Your task to perform on an android device: turn on location history Image 0: 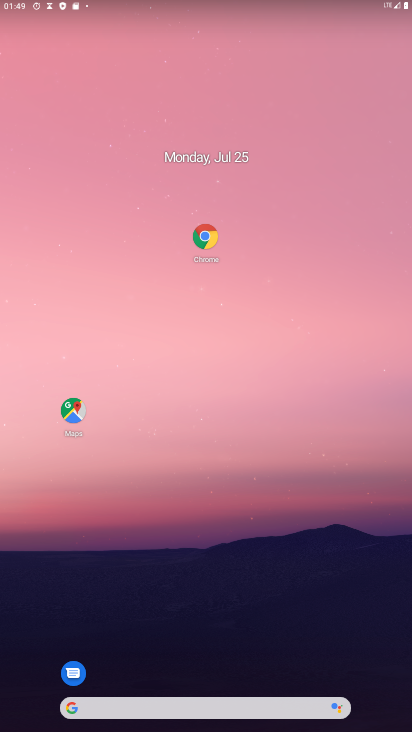
Step 0: drag from (287, 693) to (279, 55)
Your task to perform on an android device: turn on location history Image 1: 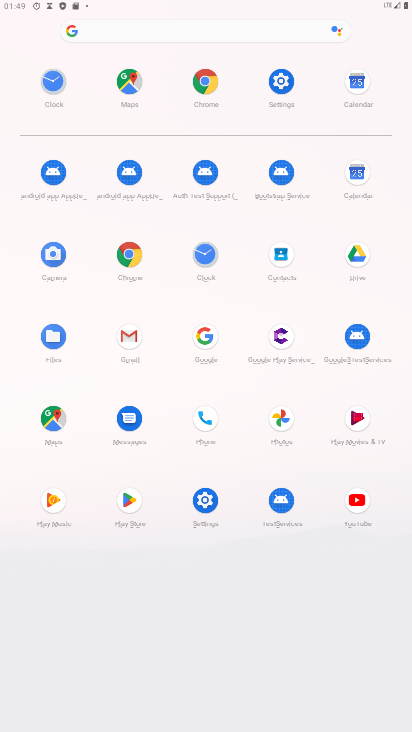
Step 1: click (288, 76)
Your task to perform on an android device: turn on location history Image 2: 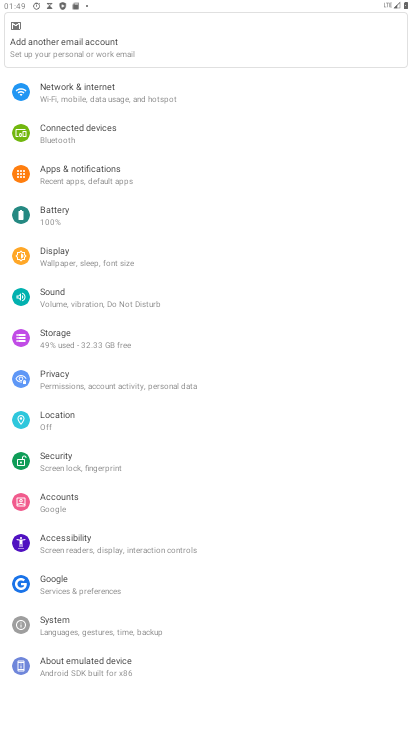
Step 2: click (80, 426)
Your task to perform on an android device: turn on location history Image 3: 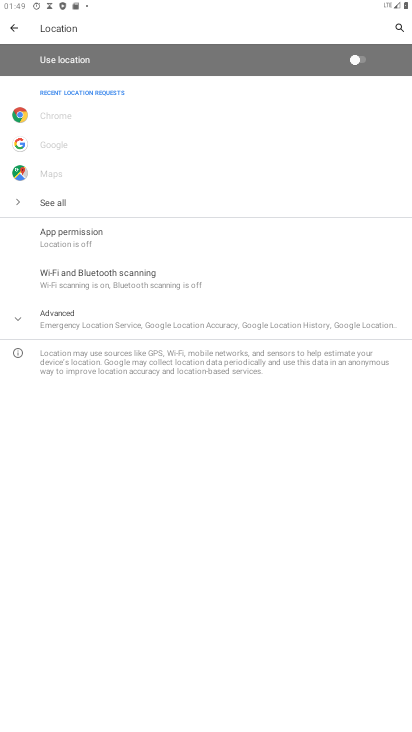
Step 3: click (130, 314)
Your task to perform on an android device: turn on location history Image 4: 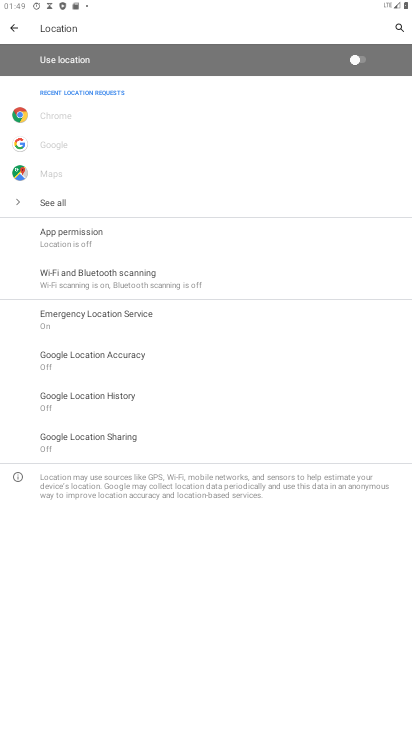
Step 4: click (115, 391)
Your task to perform on an android device: turn on location history Image 5: 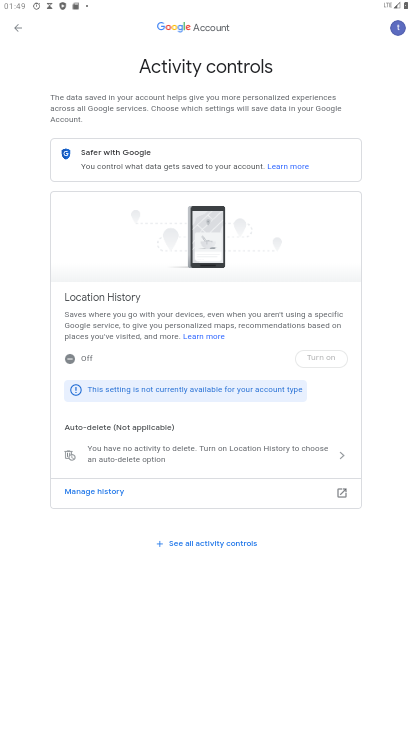
Step 5: click (188, 544)
Your task to perform on an android device: turn on location history Image 6: 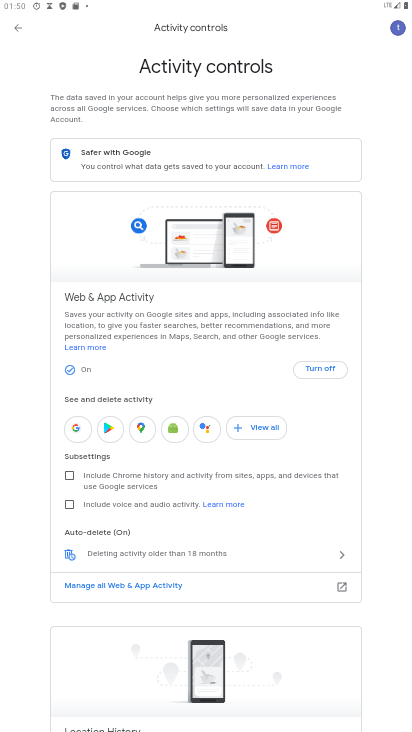
Step 6: task complete